Your task to perform on an android device: change the clock display to show seconds Image 0: 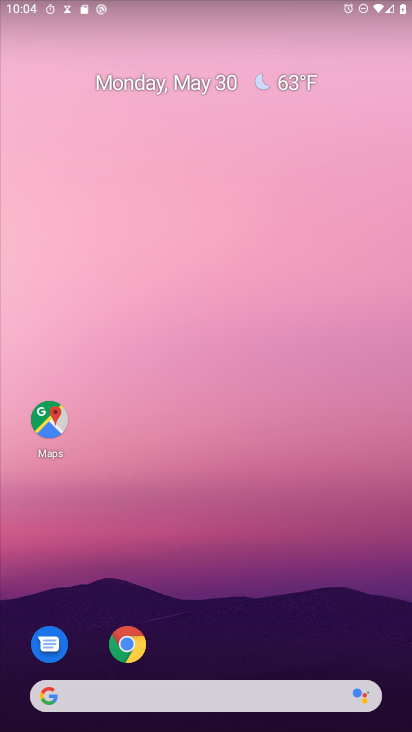
Step 0: drag from (211, 633) to (240, 73)
Your task to perform on an android device: change the clock display to show seconds Image 1: 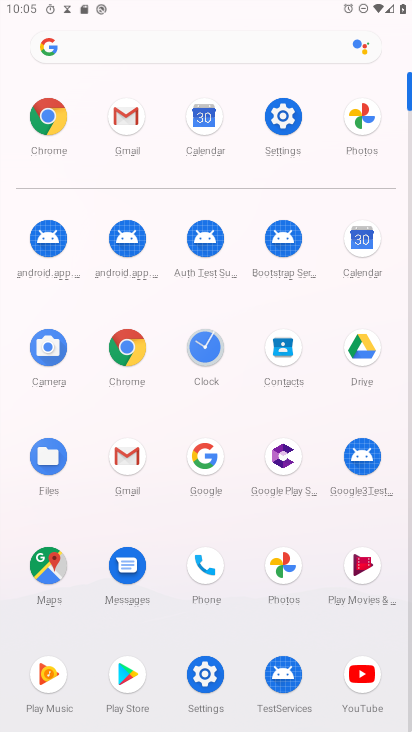
Step 1: click (210, 341)
Your task to perform on an android device: change the clock display to show seconds Image 2: 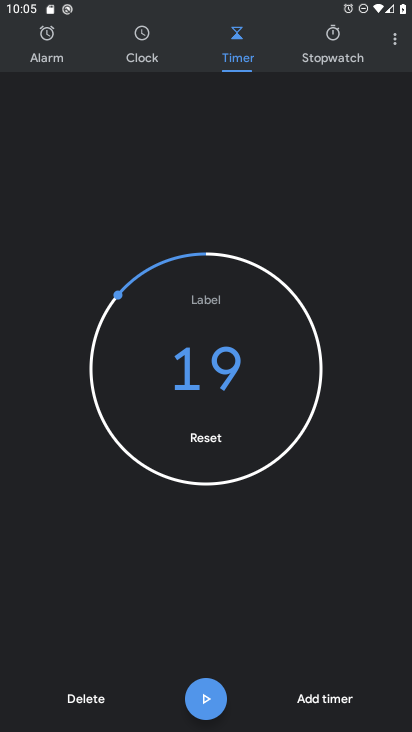
Step 2: click (392, 40)
Your task to perform on an android device: change the clock display to show seconds Image 3: 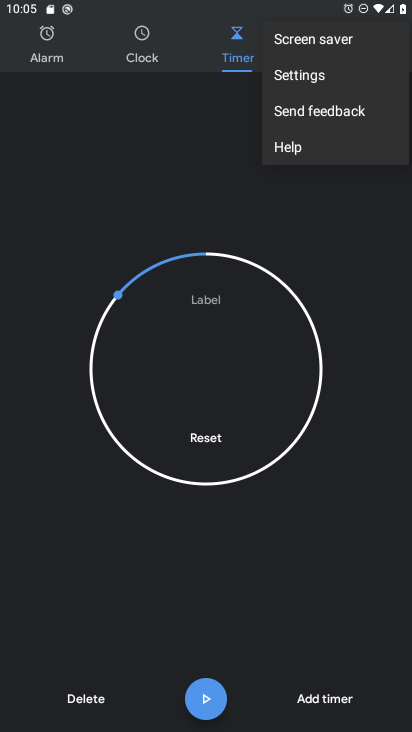
Step 3: click (311, 67)
Your task to perform on an android device: change the clock display to show seconds Image 4: 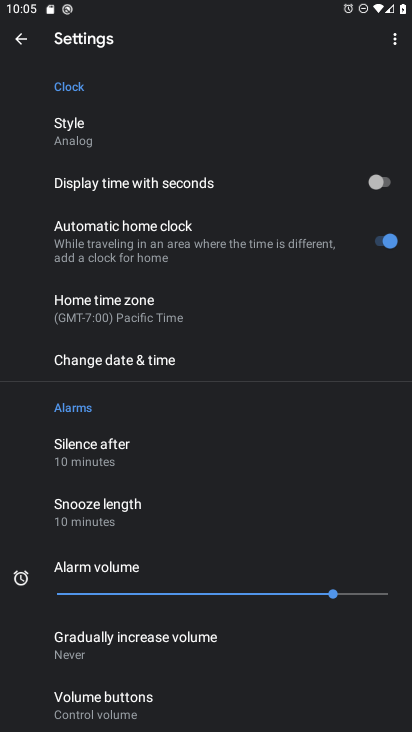
Step 4: drag from (145, 360) to (15, 269)
Your task to perform on an android device: change the clock display to show seconds Image 5: 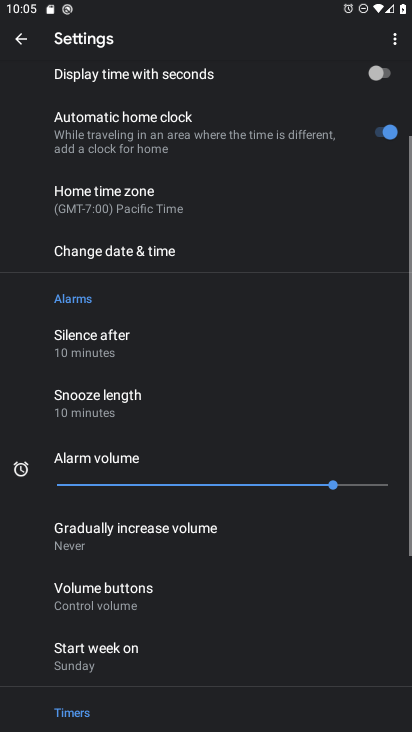
Step 5: click (380, 178)
Your task to perform on an android device: change the clock display to show seconds Image 6: 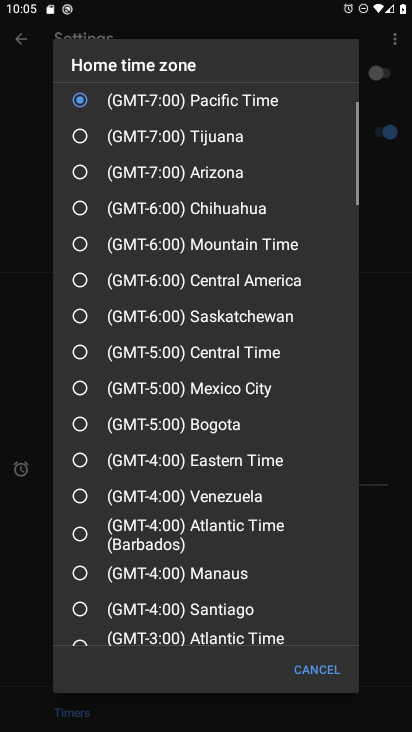
Step 6: press back button
Your task to perform on an android device: change the clock display to show seconds Image 7: 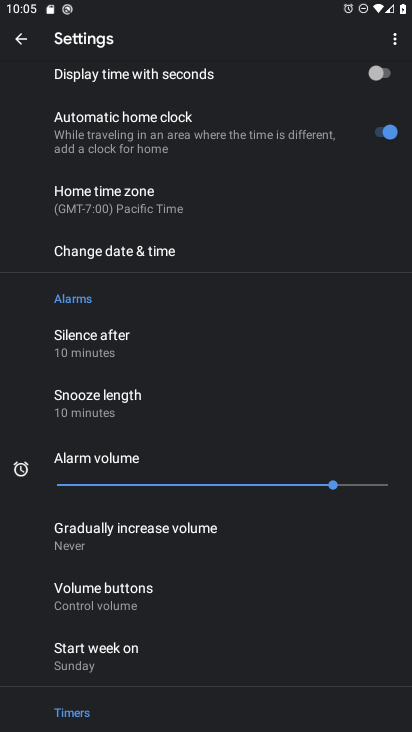
Step 7: click (377, 69)
Your task to perform on an android device: change the clock display to show seconds Image 8: 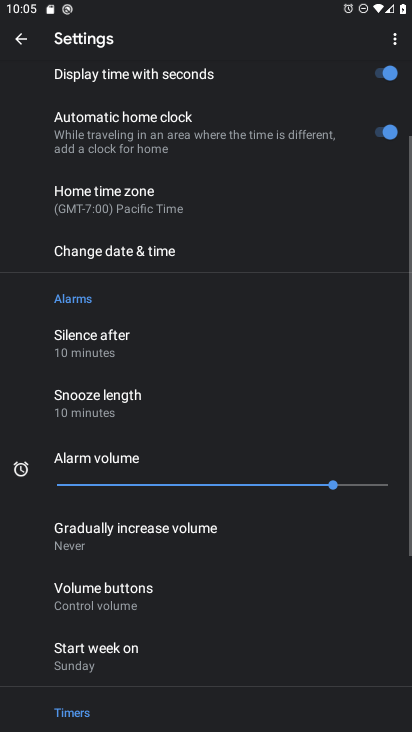
Step 8: task complete